Your task to perform on an android device: turn on improve location accuracy Image 0: 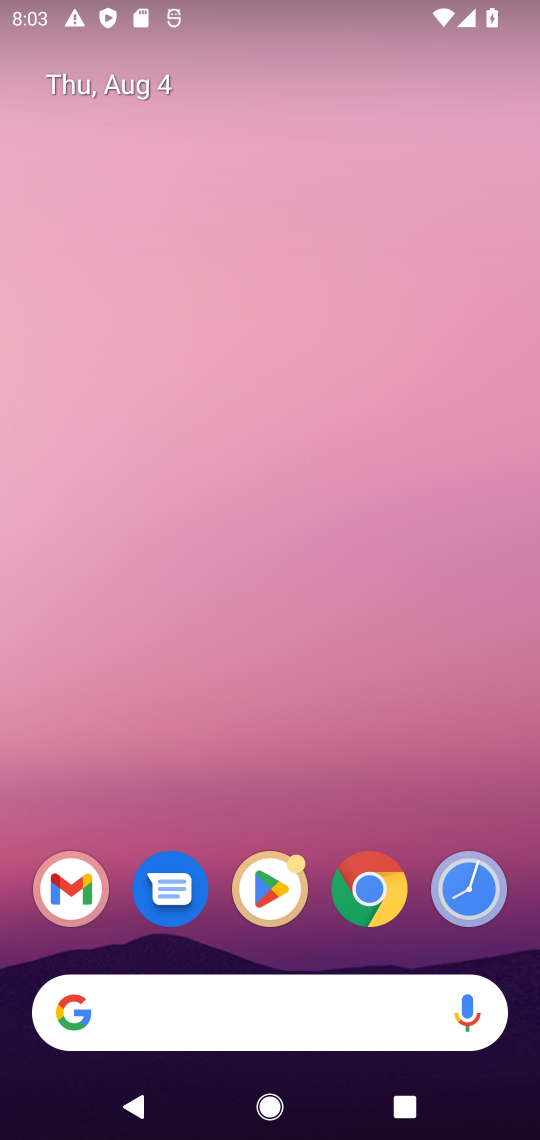
Step 0: drag from (299, 850) to (299, 96)
Your task to perform on an android device: turn on improve location accuracy Image 1: 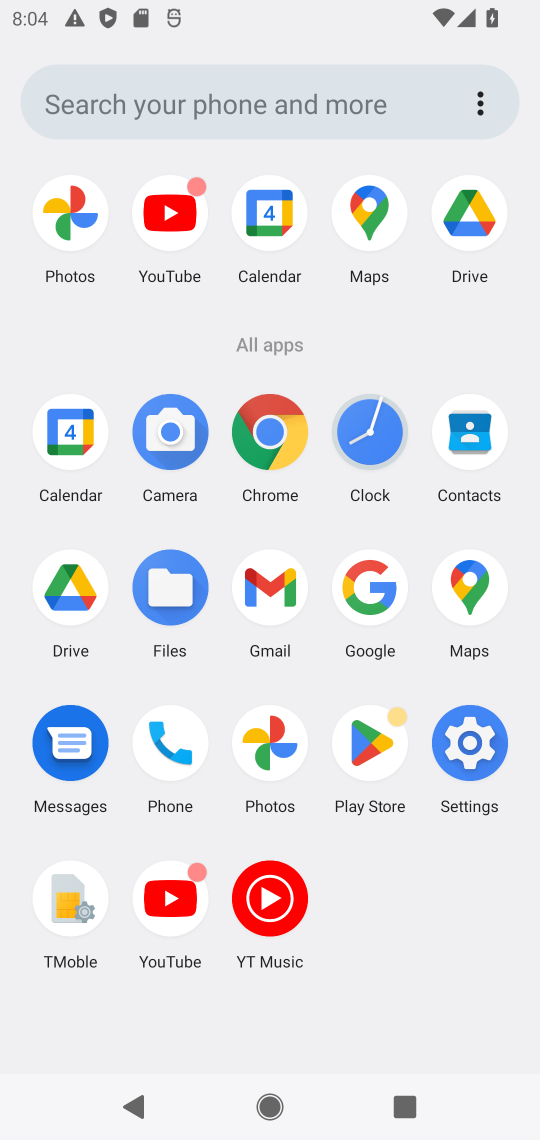
Step 1: click (269, 716)
Your task to perform on an android device: turn on improve location accuracy Image 2: 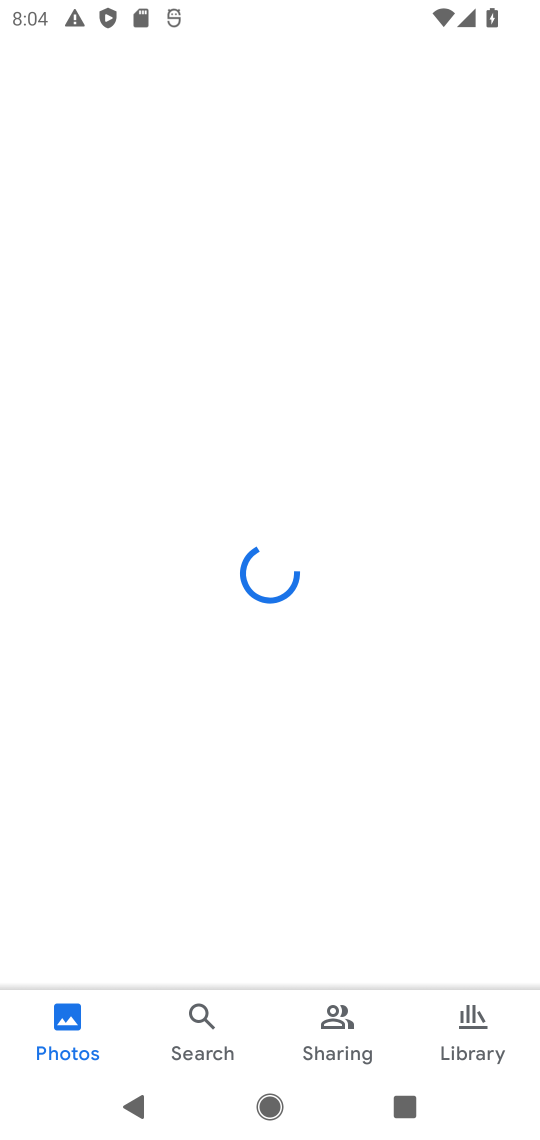
Step 2: press back button
Your task to perform on an android device: turn on improve location accuracy Image 3: 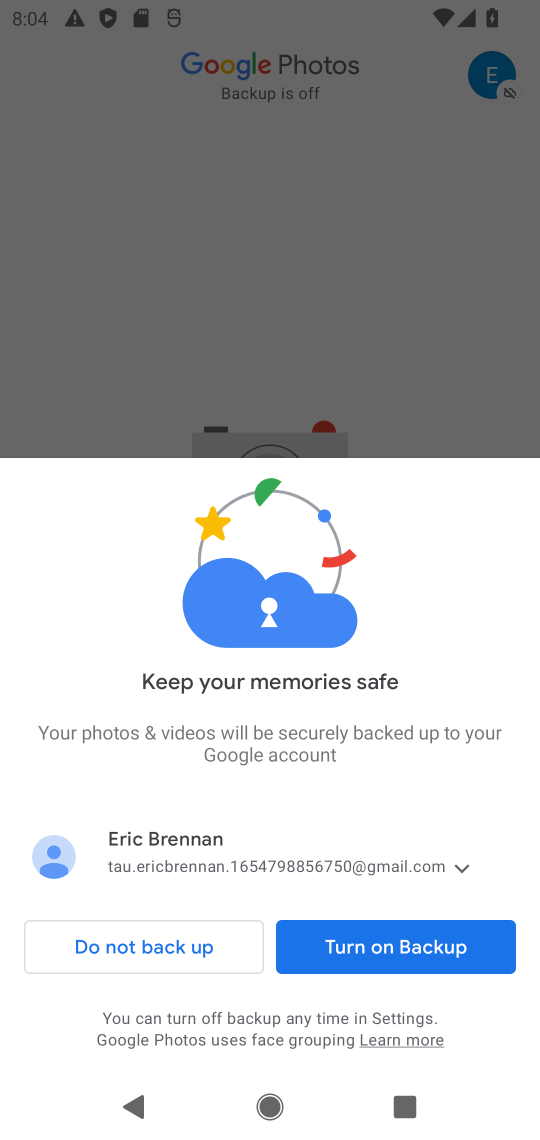
Step 3: press back button
Your task to perform on an android device: turn on improve location accuracy Image 4: 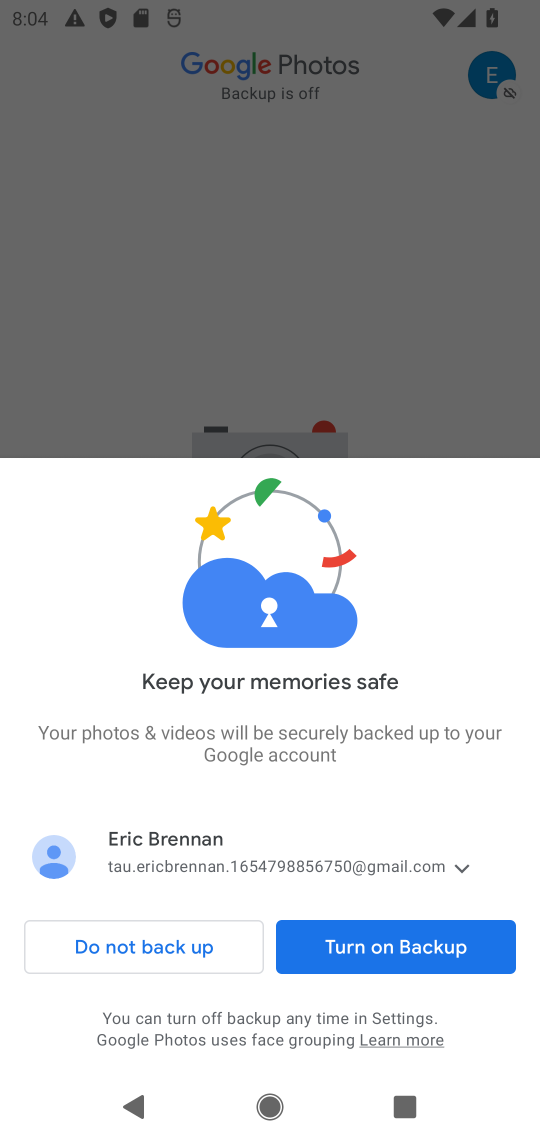
Step 4: press home button
Your task to perform on an android device: turn on improve location accuracy Image 5: 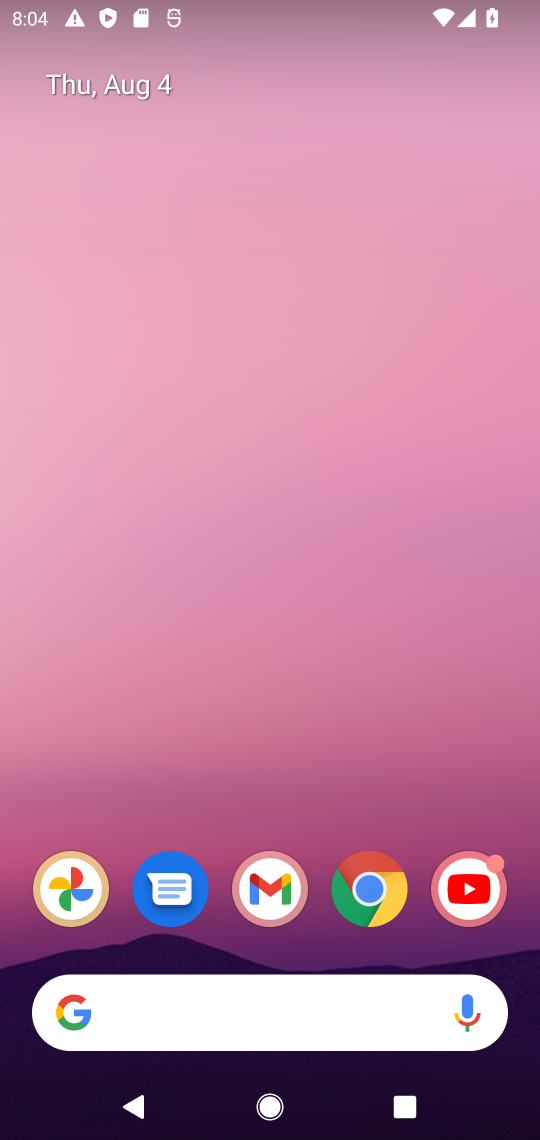
Step 5: drag from (262, 538) to (258, 221)
Your task to perform on an android device: turn on improve location accuracy Image 6: 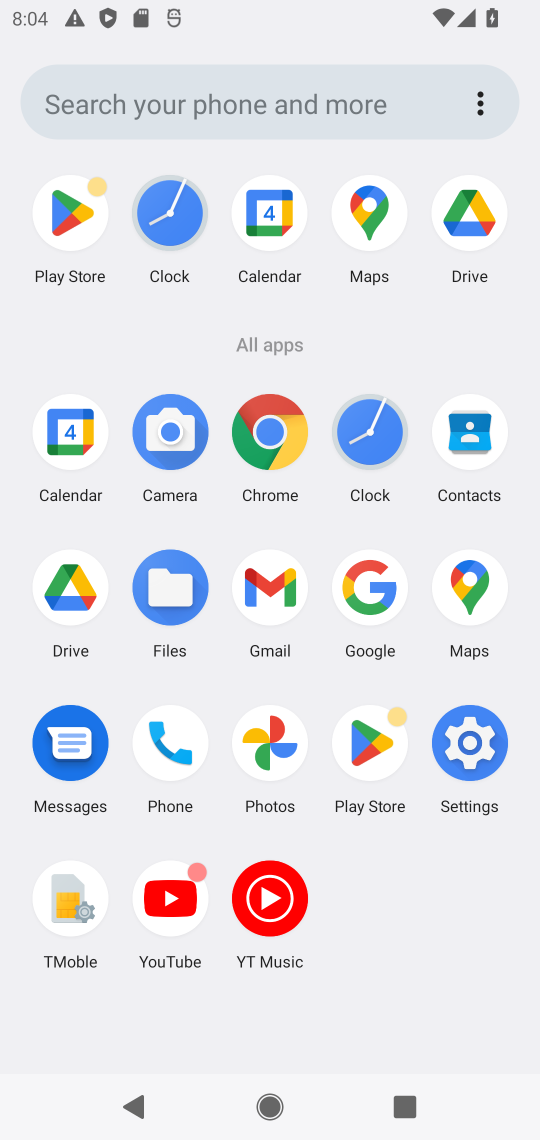
Step 6: click (450, 753)
Your task to perform on an android device: turn on improve location accuracy Image 7: 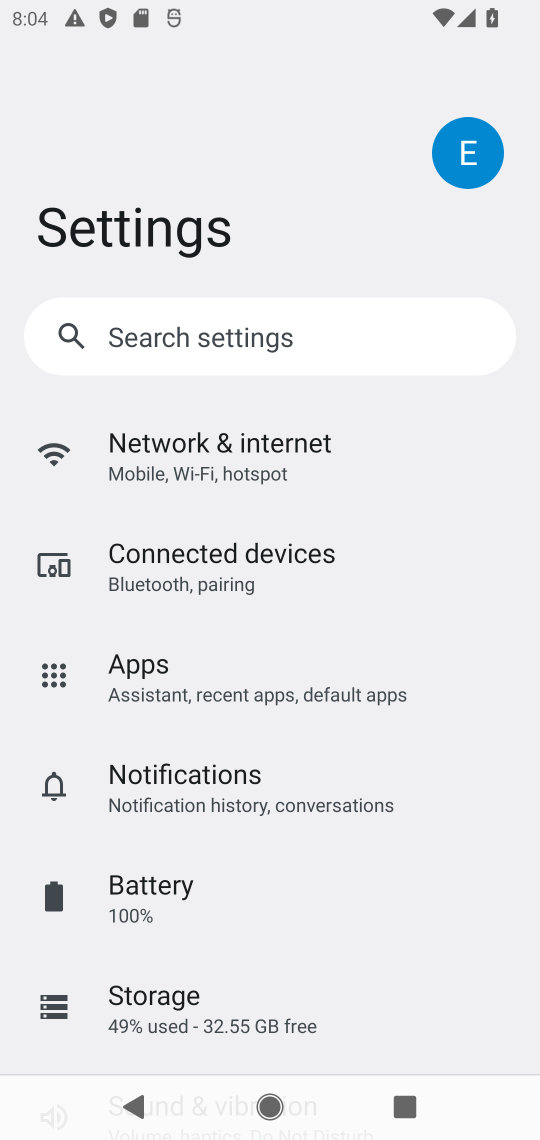
Step 7: drag from (289, 891) to (193, 247)
Your task to perform on an android device: turn on improve location accuracy Image 8: 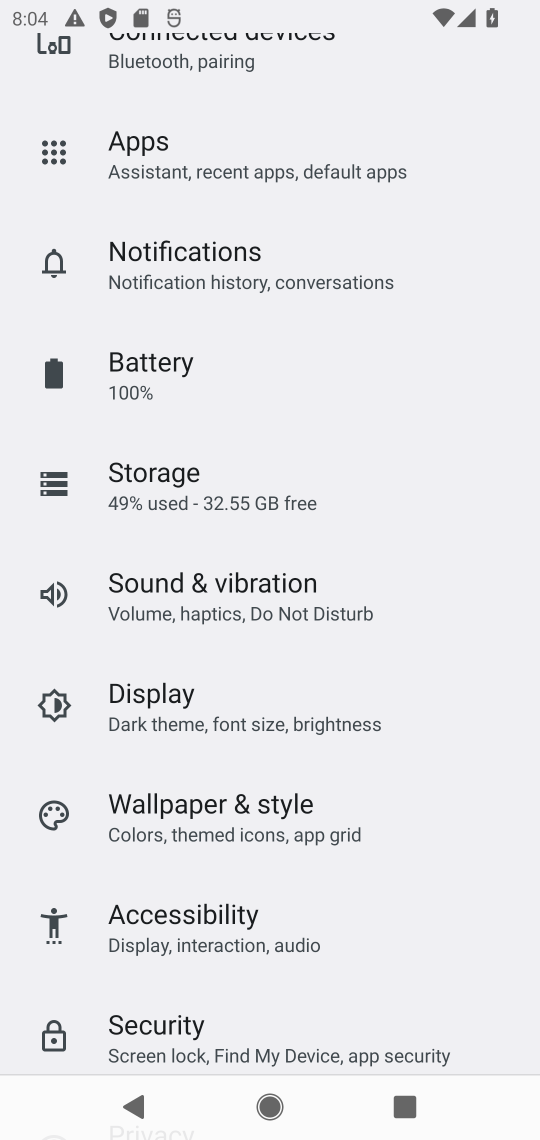
Step 8: drag from (213, 923) to (138, 250)
Your task to perform on an android device: turn on improve location accuracy Image 9: 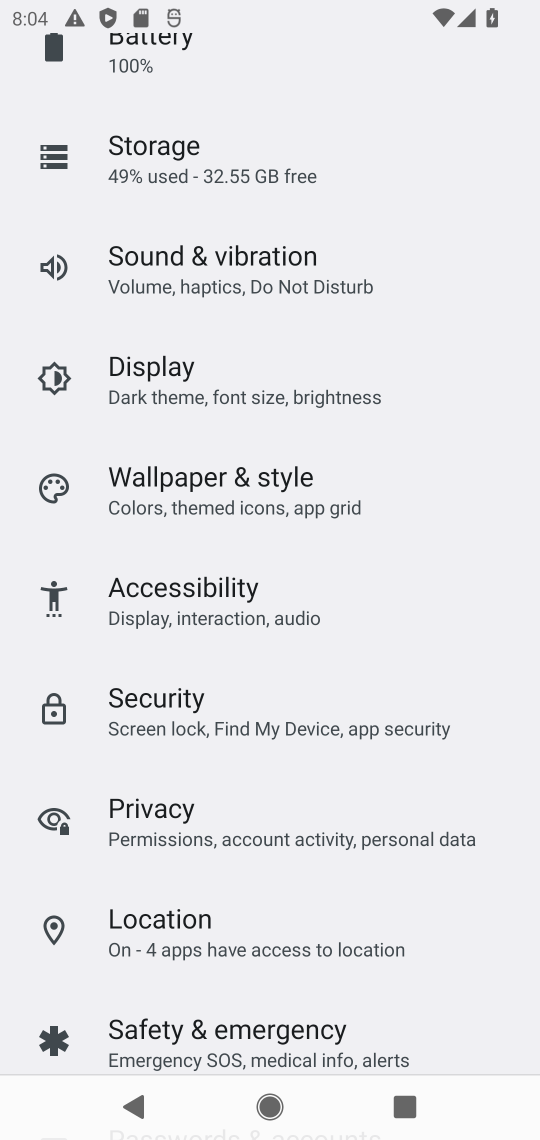
Step 9: click (185, 943)
Your task to perform on an android device: turn on improve location accuracy Image 10: 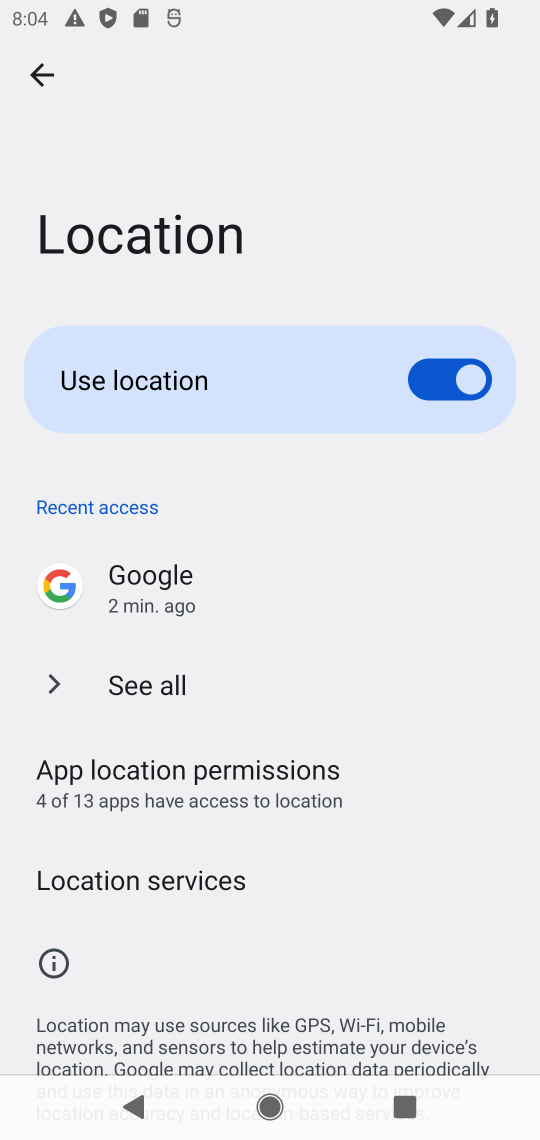
Step 10: click (231, 882)
Your task to perform on an android device: turn on improve location accuracy Image 11: 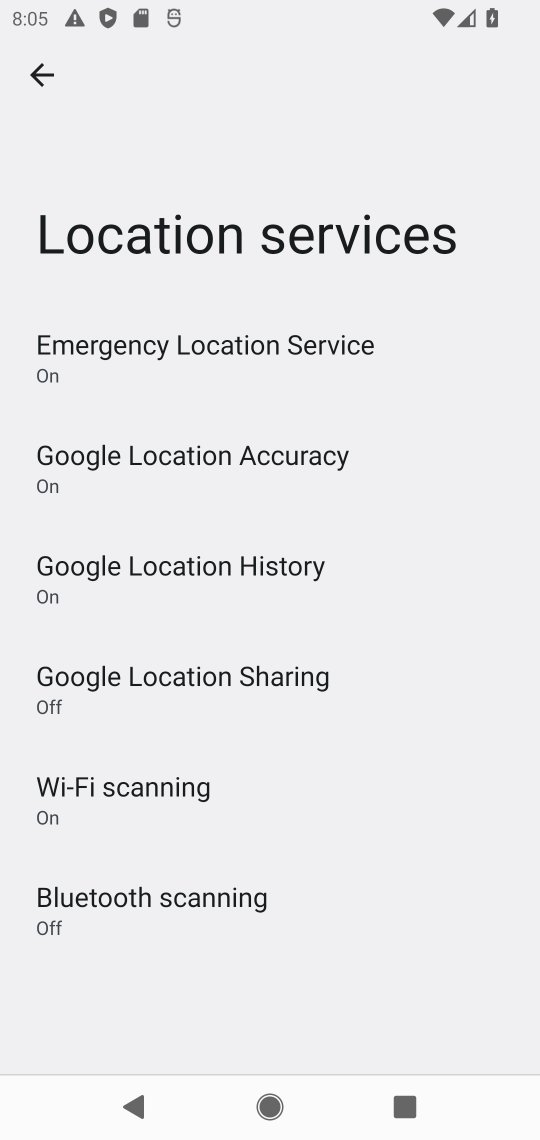
Step 11: click (280, 462)
Your task to perform on an android device: turn on improve location accuracy Image 12: 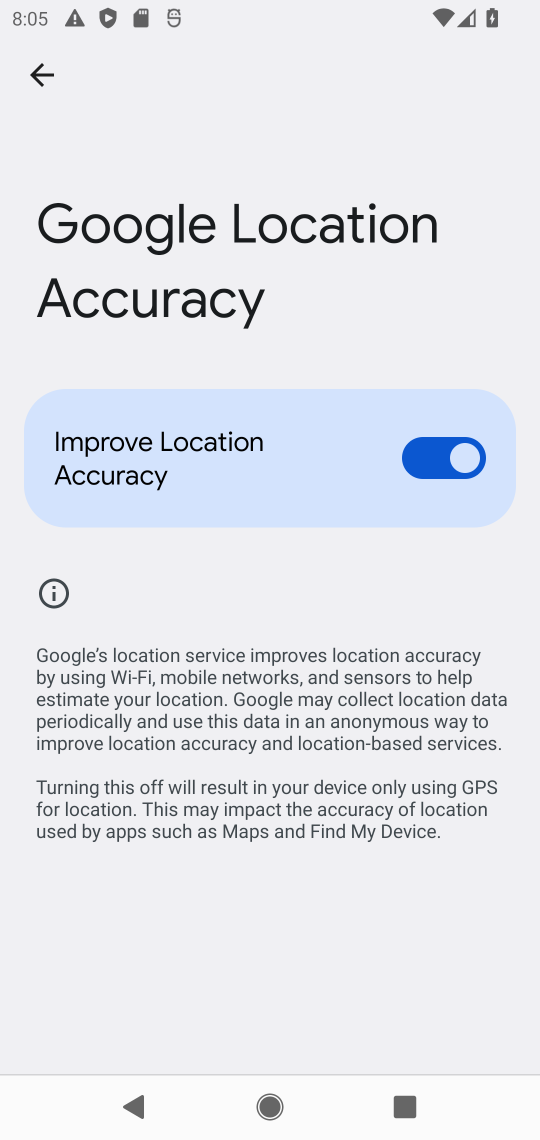
Step 12: task complete